Your task to perform on an android device: Open notification settings Image 0: 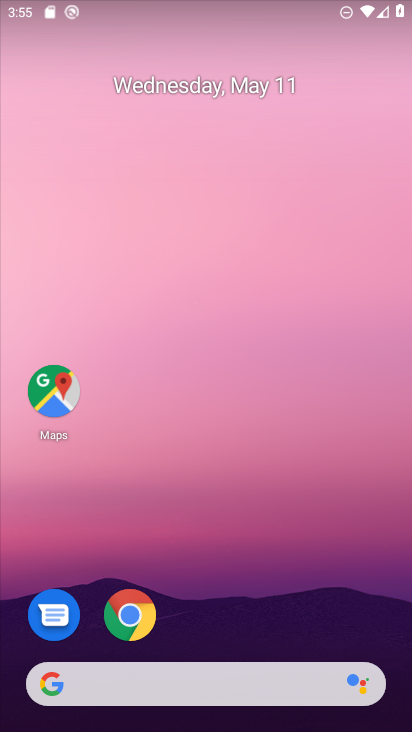
Step 0: drag from (267, 532) to (263, 152)
Your task to perform on an android device: Open notification settings Image 1: 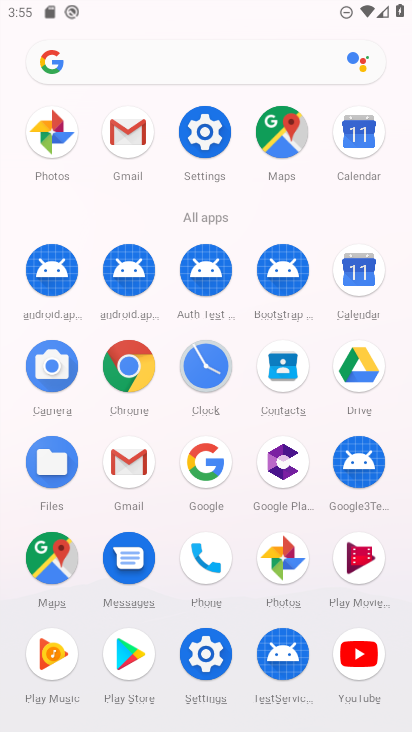
Step 1: click (215, 122)
Your task to perform on an android device: Open notification settings Image 2: 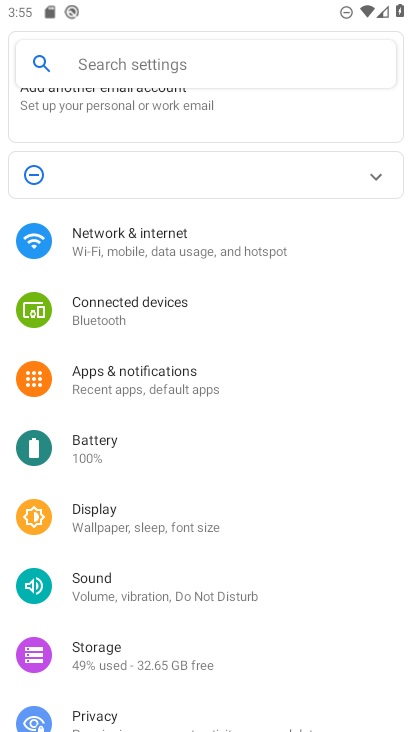
Step 2: click (185, 400)
Your task to perform on an android device: Open notification settings Image 3: 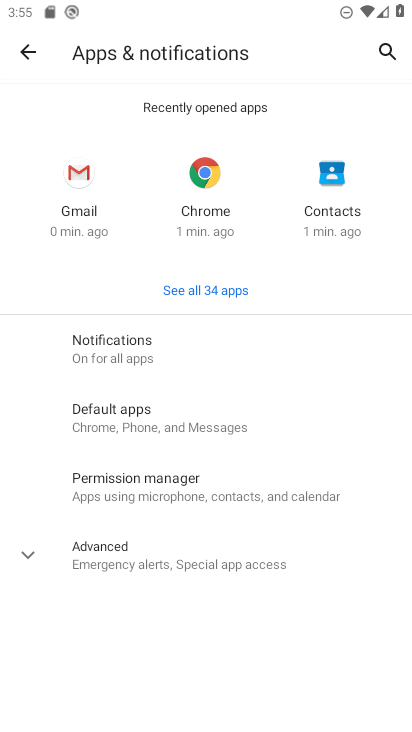
Step 3: click (157, 336)
Your task to perform on an android device: Open notification settings Image 4: 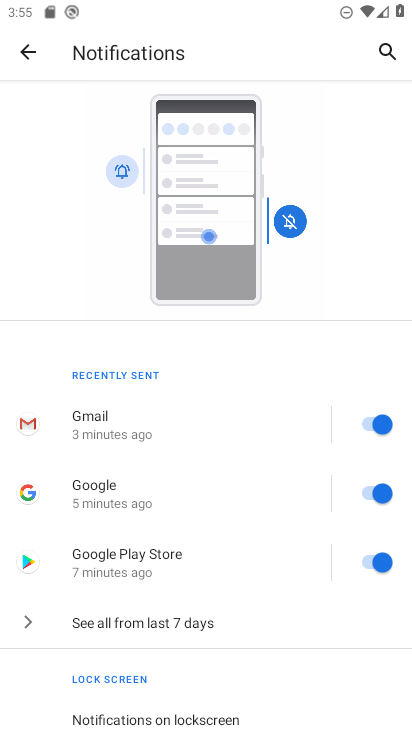
Step 4: task complete